Your task to perform on an android device: Set the phone to "Do not disturb". Image 0: 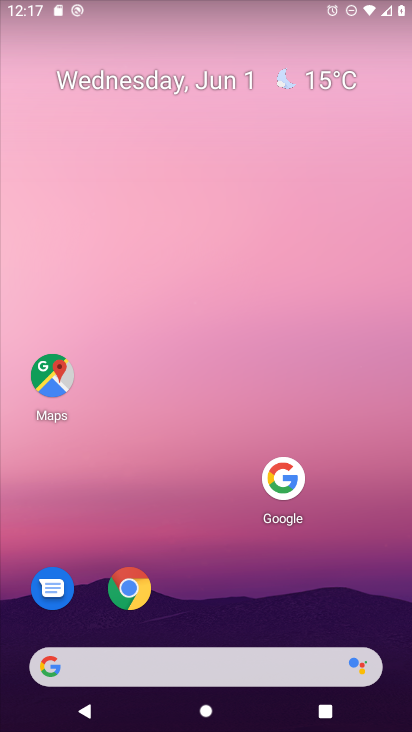
Step 0: press home button
Your task to perform on an android device: Set the phone to "Do not disturb". Image 1: 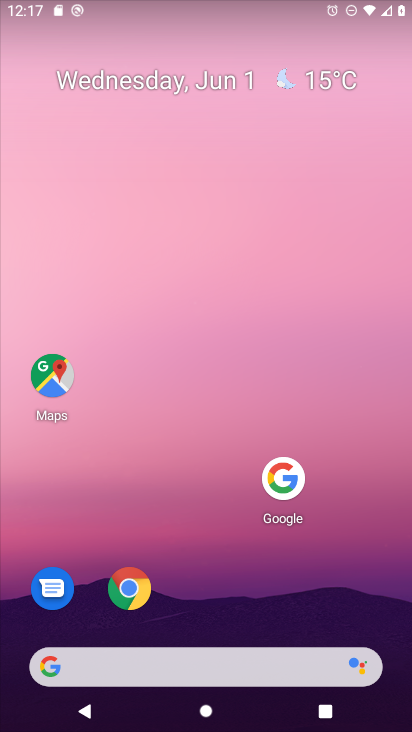
Step 1: drag from (191, 663) to (281, 153)
Your task to perform on an android device: Set the phone to "Do not disturb". Image 2: 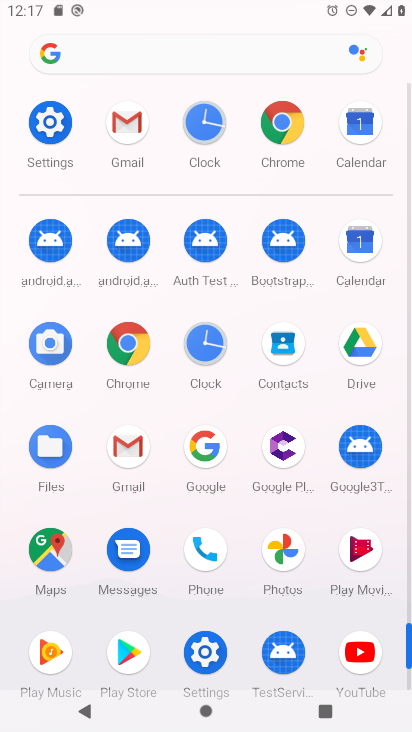
Step 2: click (50, 134)
Your task to perform on an android device: Set the phone to "Do not disturb". Image 3: 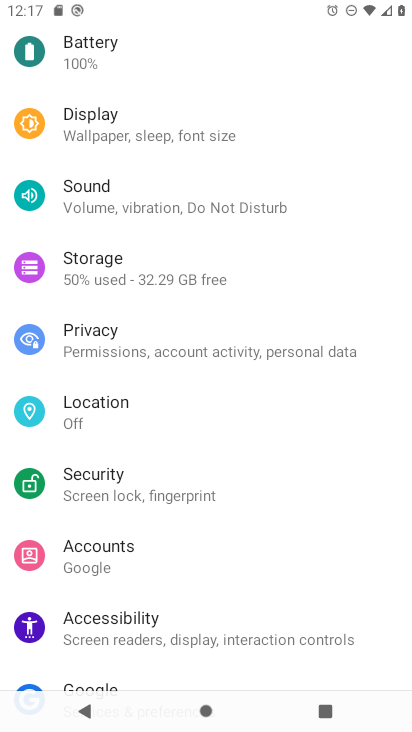
Step 3: click (119, 216)
Your task to perform on an android device: Set the phone to "Do not disturb". Image 4: 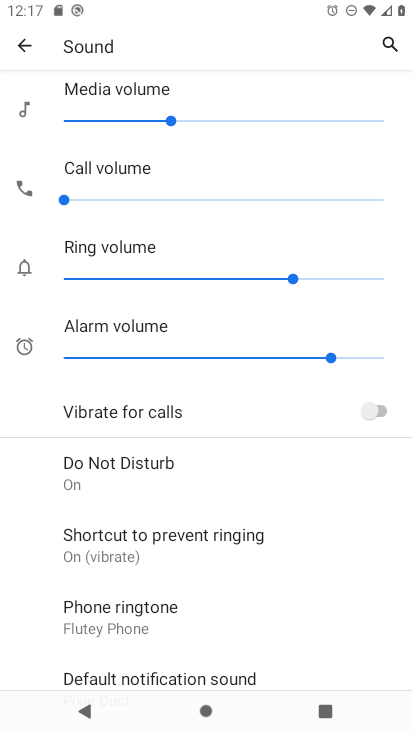
Step 4: click (154, 464)
Your task to perform on an android device: Set the phone to "Do not disturb". Image 5: 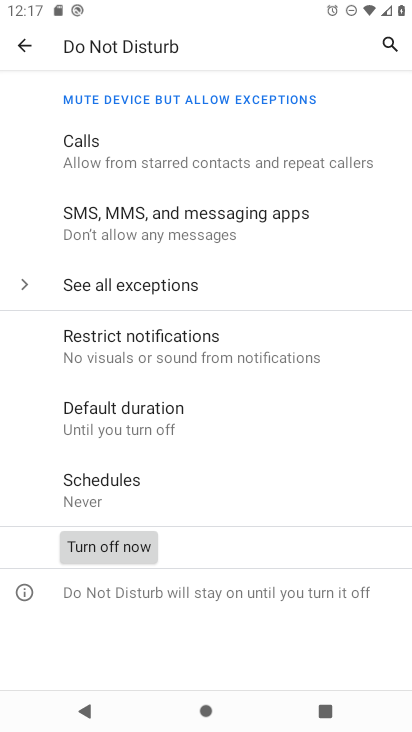
Step 5: task complete